Your task to perform on an android device: toggle sleep mode Image 0: 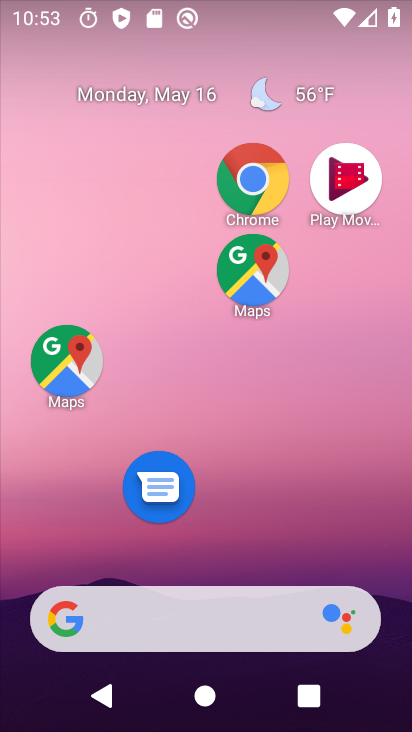
Step 0: drag from (213, 287) to (177, 14)
Your task to perform on an android device: toggle sleep mode Image 1: 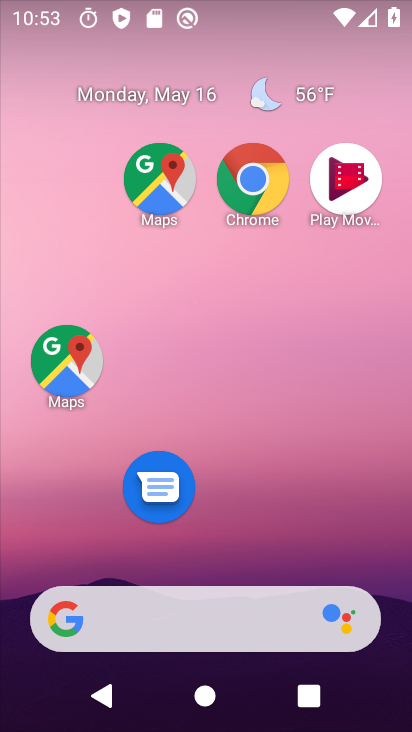
Step 1: task complete